Your task to perform on an android device: turn off javascript in the chrome app Image 0: 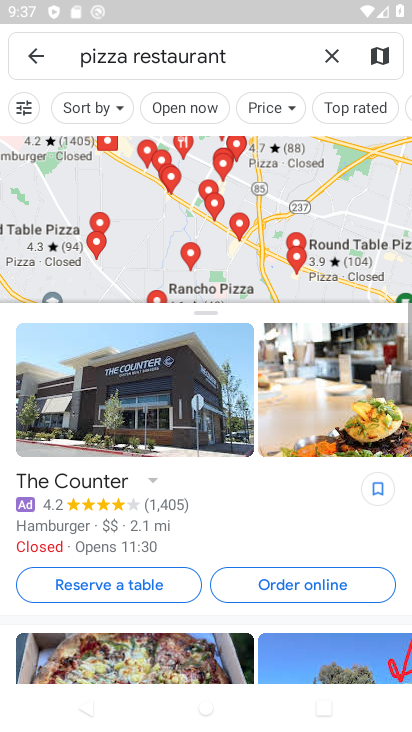
Step 0: press home button
Your task to perform on an android device: turn off javascript in the chrome app Image 1: 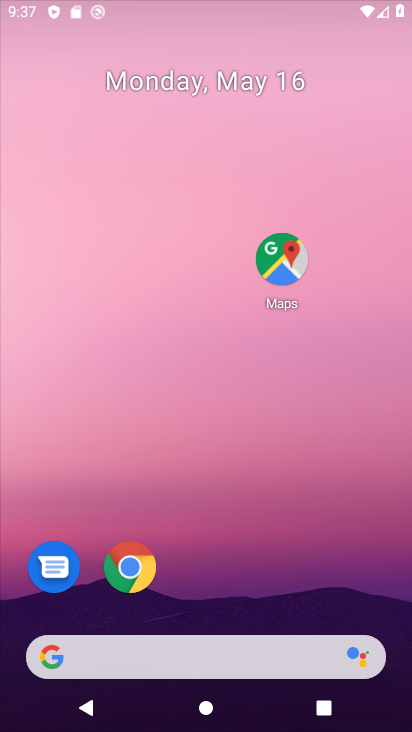
Step 1: click (241, 584)
Your task to perform on an android device: turn off javascript in the chrome app Image 2: 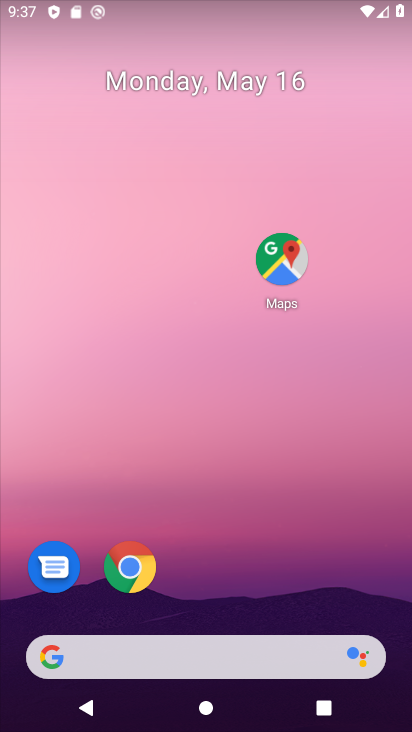
Step 2: click (130, 566)
Your task to perform on an android device: turn off javascript in the chrome app Image 3: 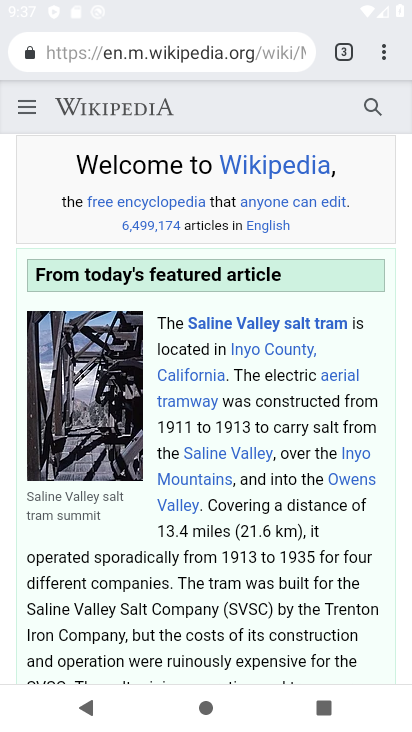
Step 3: click (379, 55)
Your task to perform on an android device: turn off javascript in the chrome app Image 4: 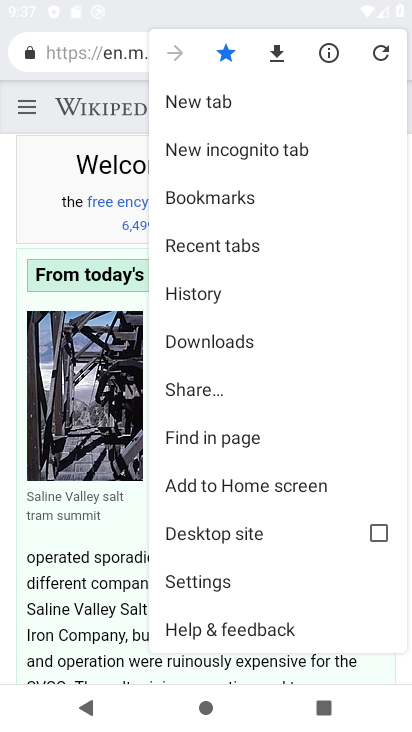
Step 4: click (239, 578)
Your task to perform on an android device: turn off javascript in the chrome app Image 5: 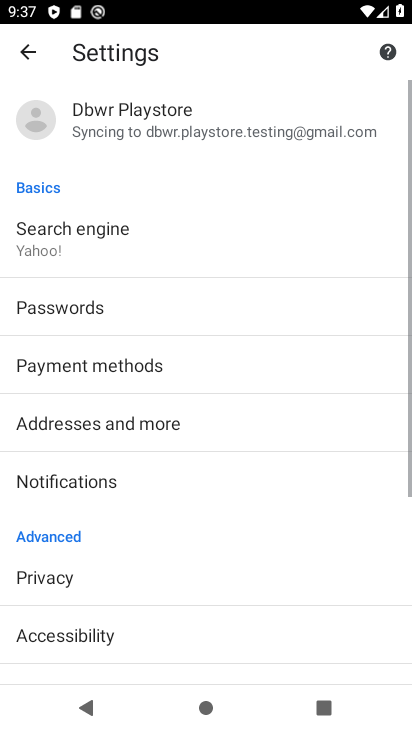
Step 5: drag from (165, 619) to (175, 183)
Your task to perform on an android device: turn off javascript in the chrome app Image 6: 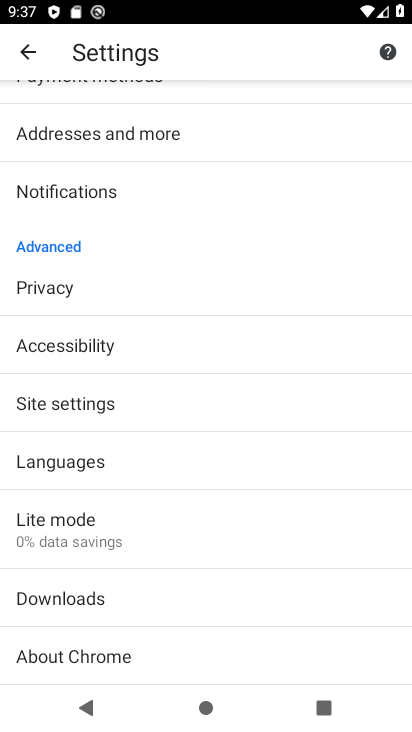
Step 6: click (73, 397)
Your task to perform on an android device: turn off javascript in the chrome app Image 7: 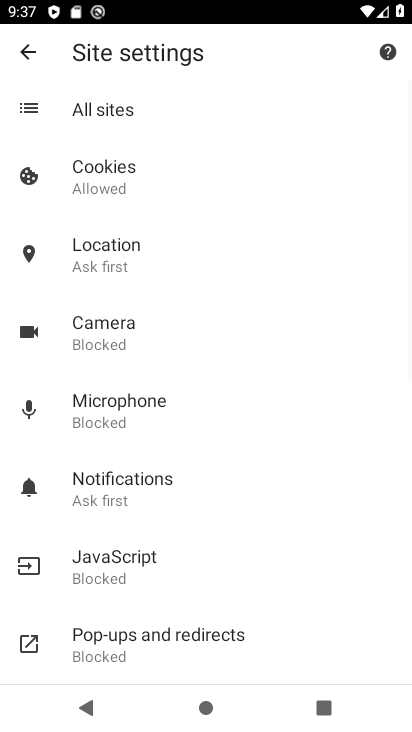
Step 7: click (131, 562)
Your task to perform on an android device: turn off javascript in the chrome app Image 8: 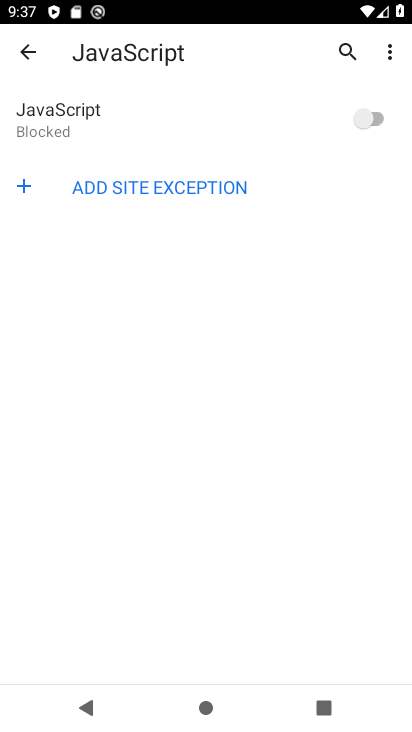
Step 8: task complete